Your task to perform on an android device: turn off location Image 0: 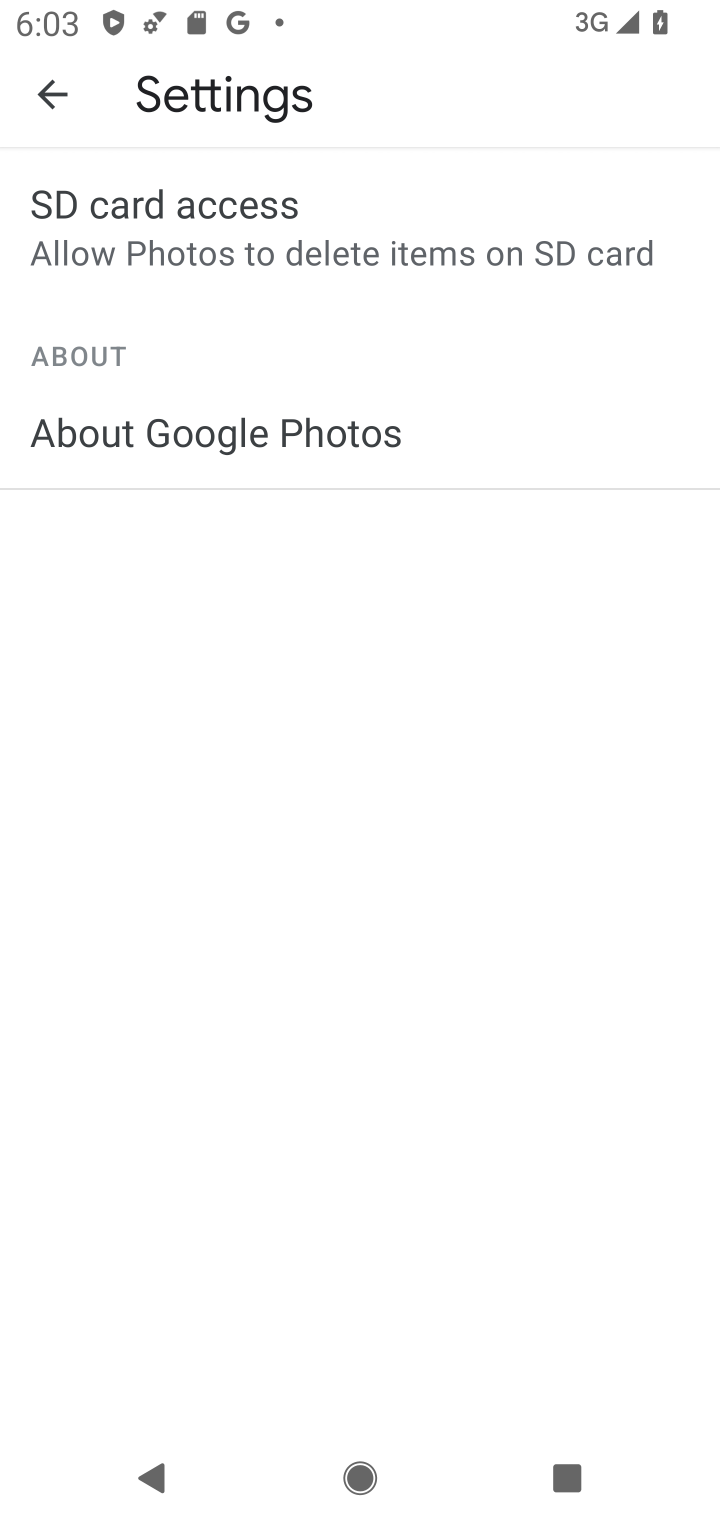
Step 0: press home button
Your task to perform on an android device: turn off location Image 1: 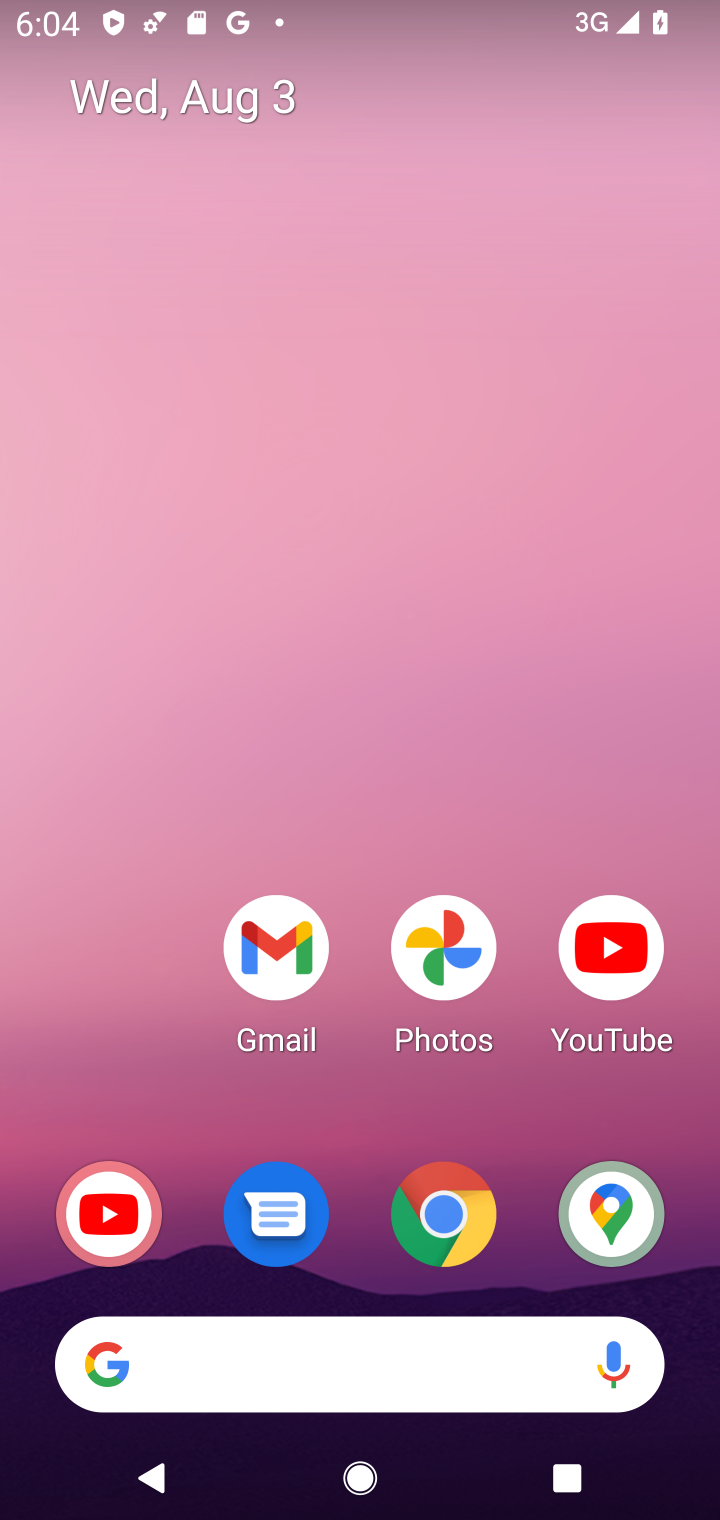
Step 1: drag from (333, 1103) to (496, 51)
Your task to perform on an android device: turn off location Image 2: 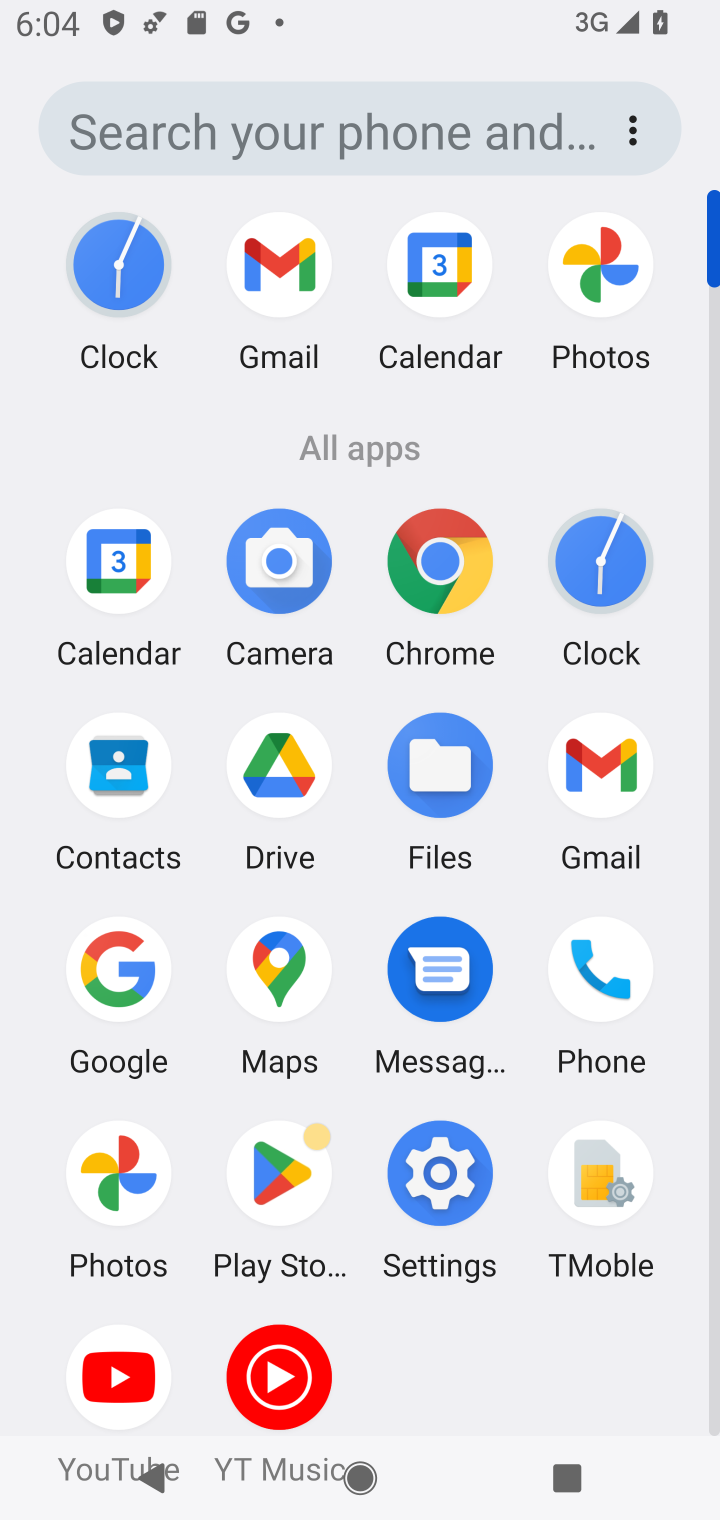
Step 2: click (428, 1151)
Your task to perform on an android device: turn off location Image 3: 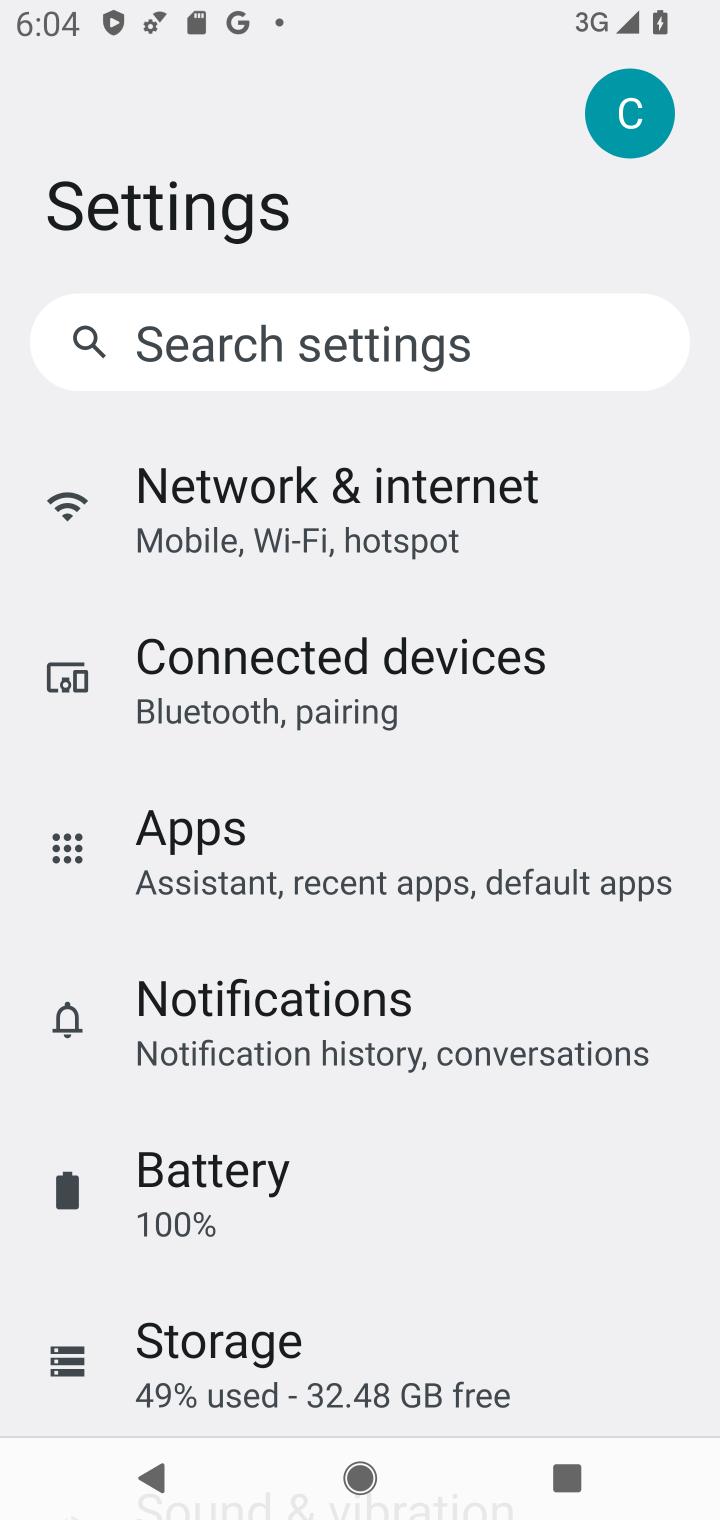
Step 3: drag from (356, 1337) to (199, 308)
Your task to perform on an android device: turn off location Image 4: 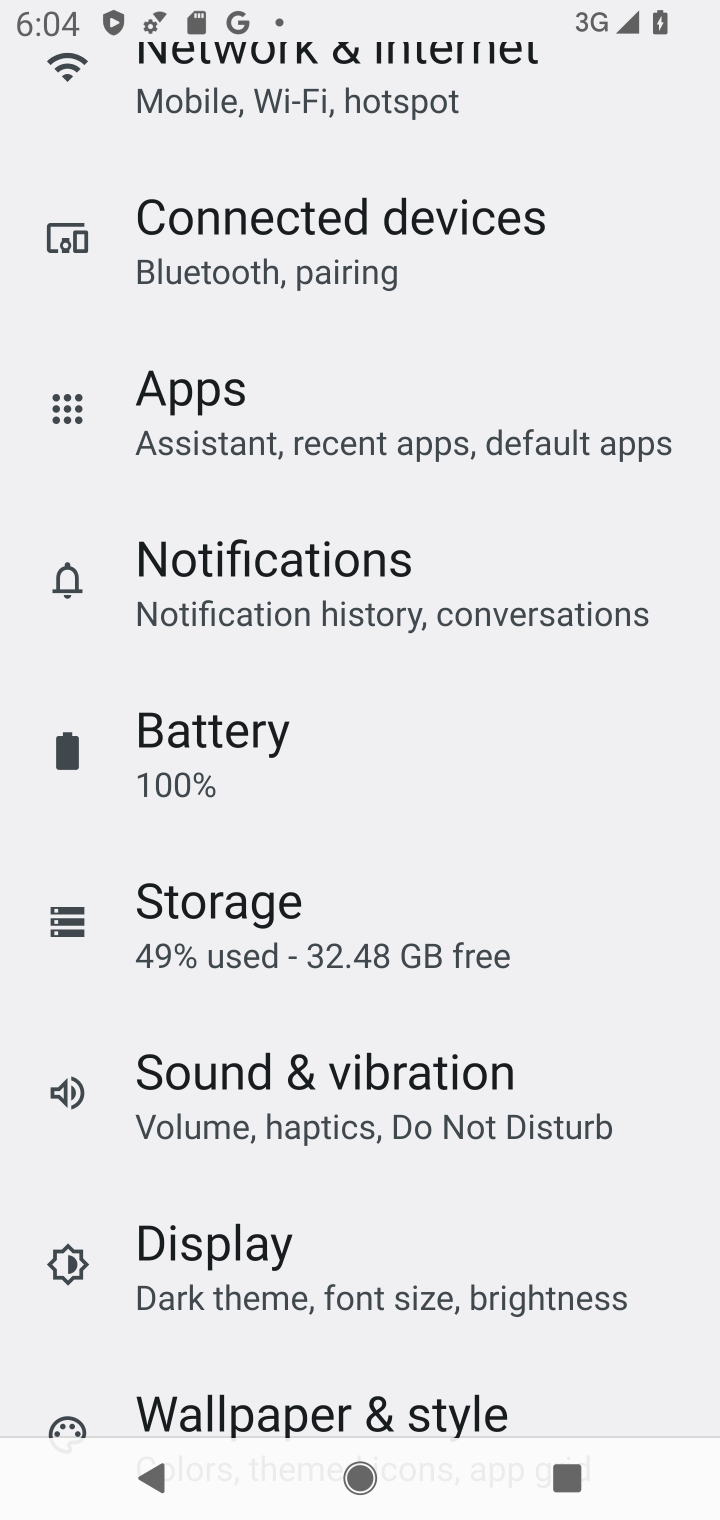
Step 4: drag from (336, 1171) to (224, 254)
Your task to perform on an android device: turn off location Image 5: 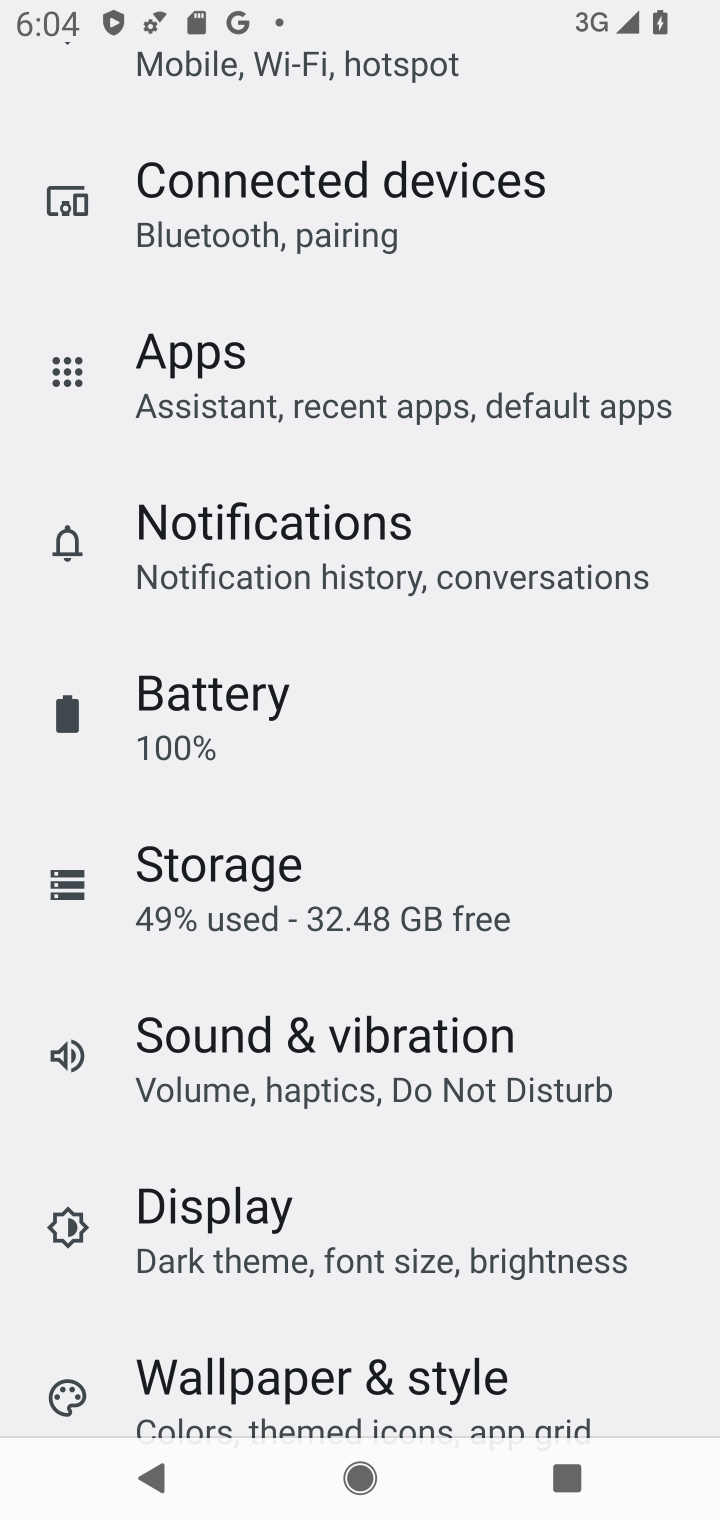
Step 5: drag from (318, 1051) to (135, 8)
Your task to perform on an android device: turn off location Image 6: 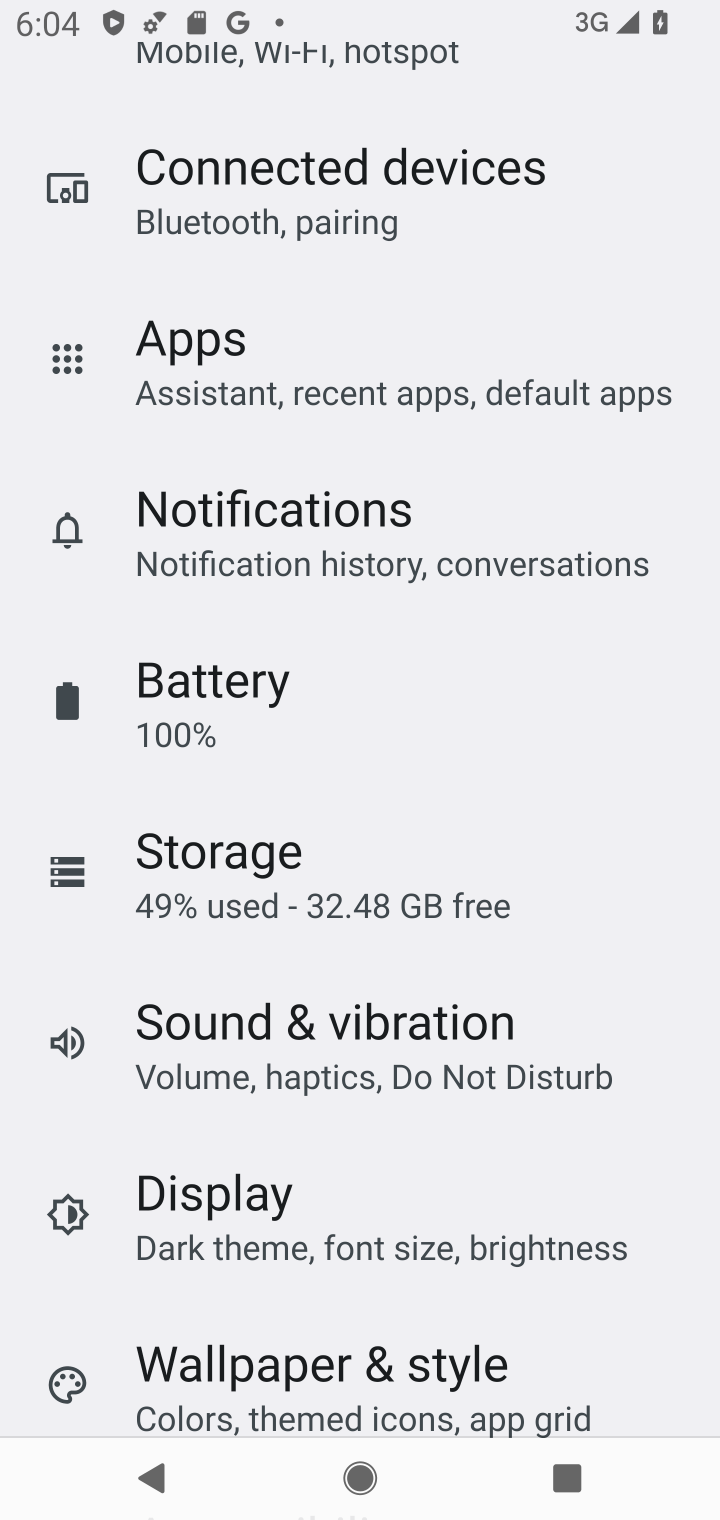
Step 6: drag from (140, 855) to (30, 60)
Your task to perform on an android device: turn off location Image 7: 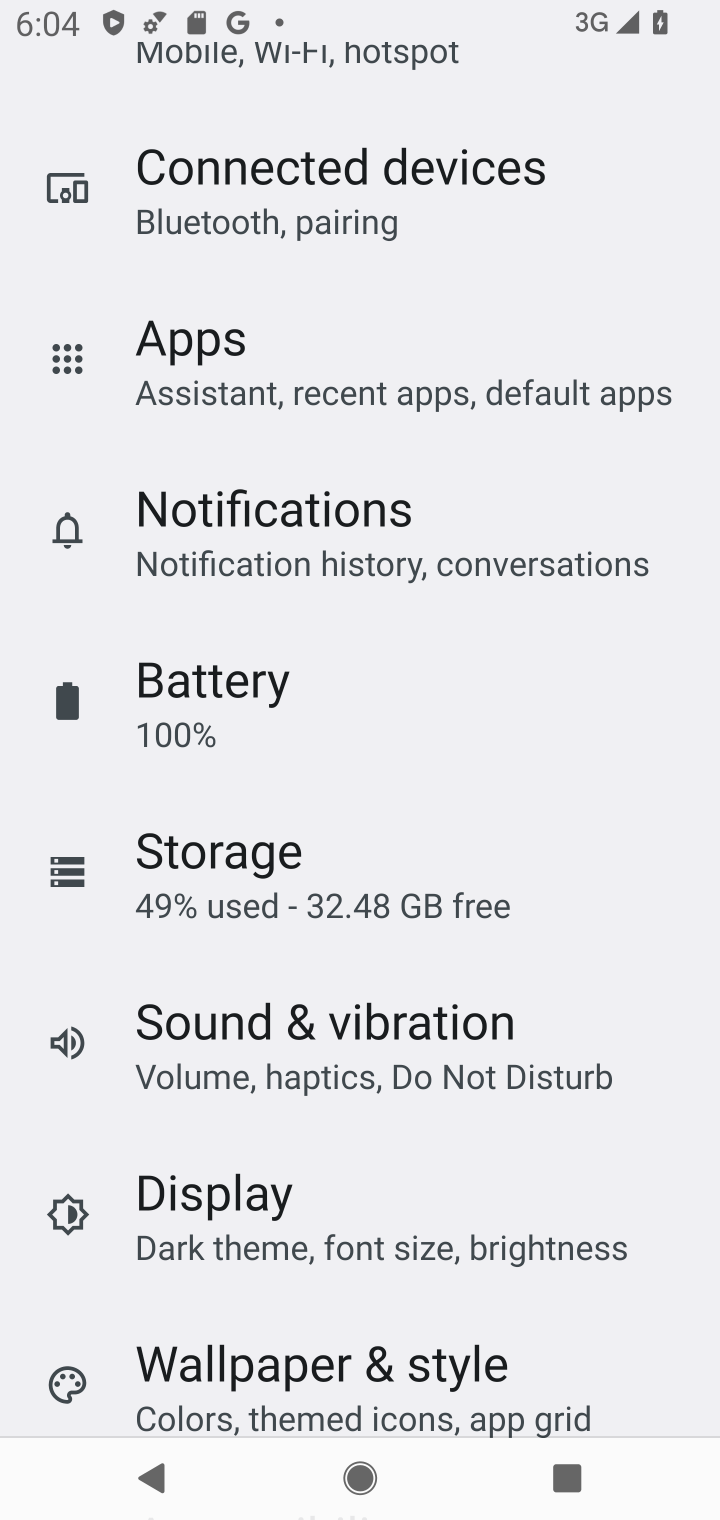
Step 7: drag from (411, 1238) to (354, 341)
Your task to perform on an android device: turn off location Image 8: 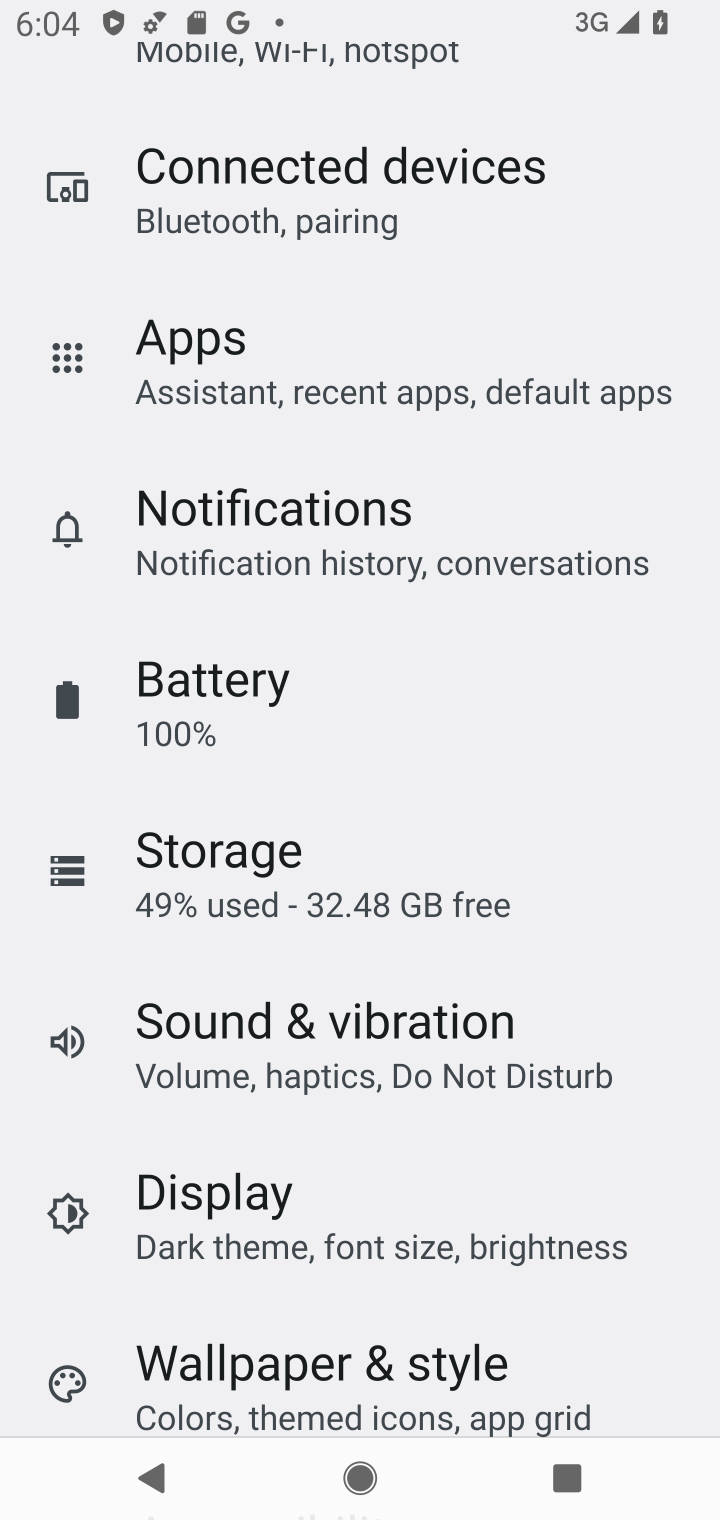
Step 8: drag from (199, 1197) to (102, 553)
Your task to perform on an android device: turn off location Image 9: 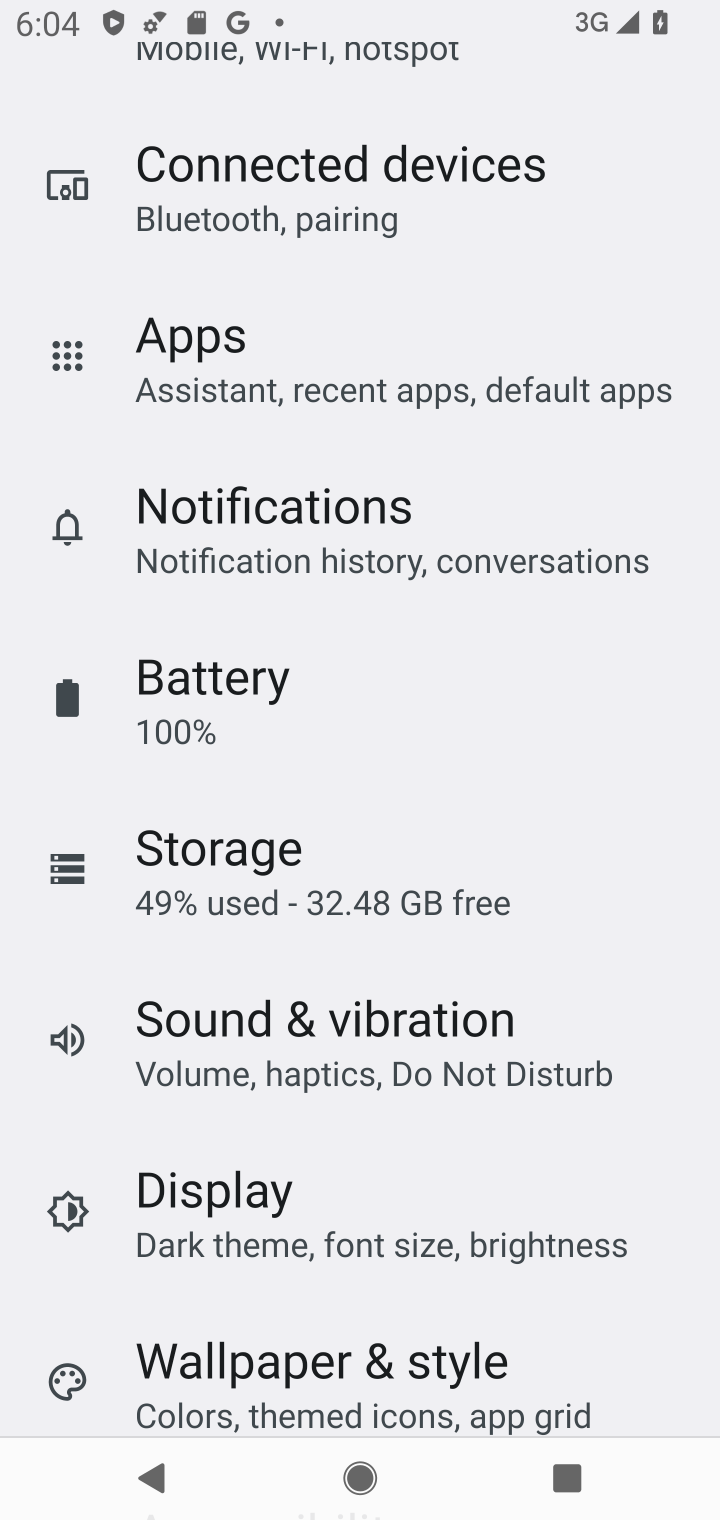
Step 9: drag from (354, 1339) to (302, 118)
Your task to perform on an android device: turn off location Image 10: 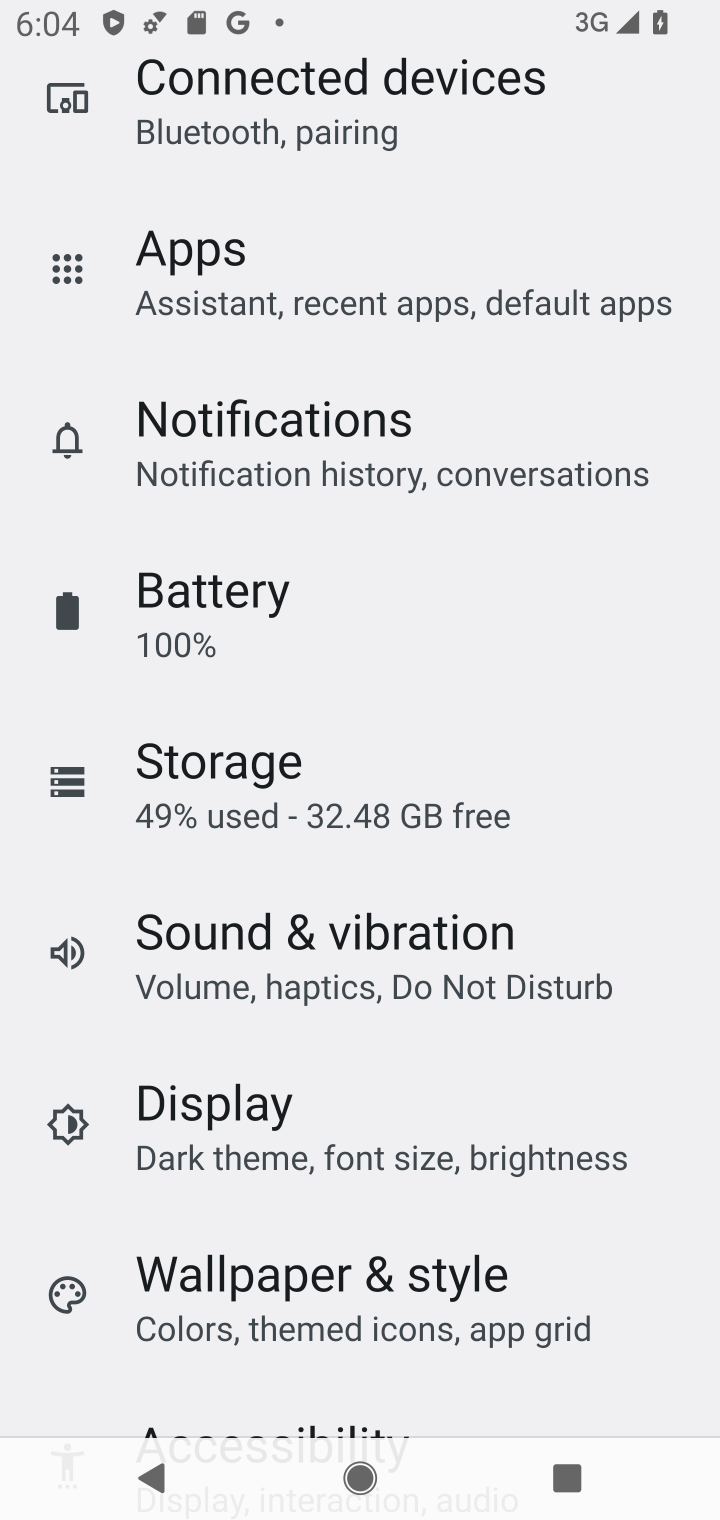
Step 10: drag from (271, 1154) to (182, 130)
Your task to perform on an android device: turn off location Image 11: 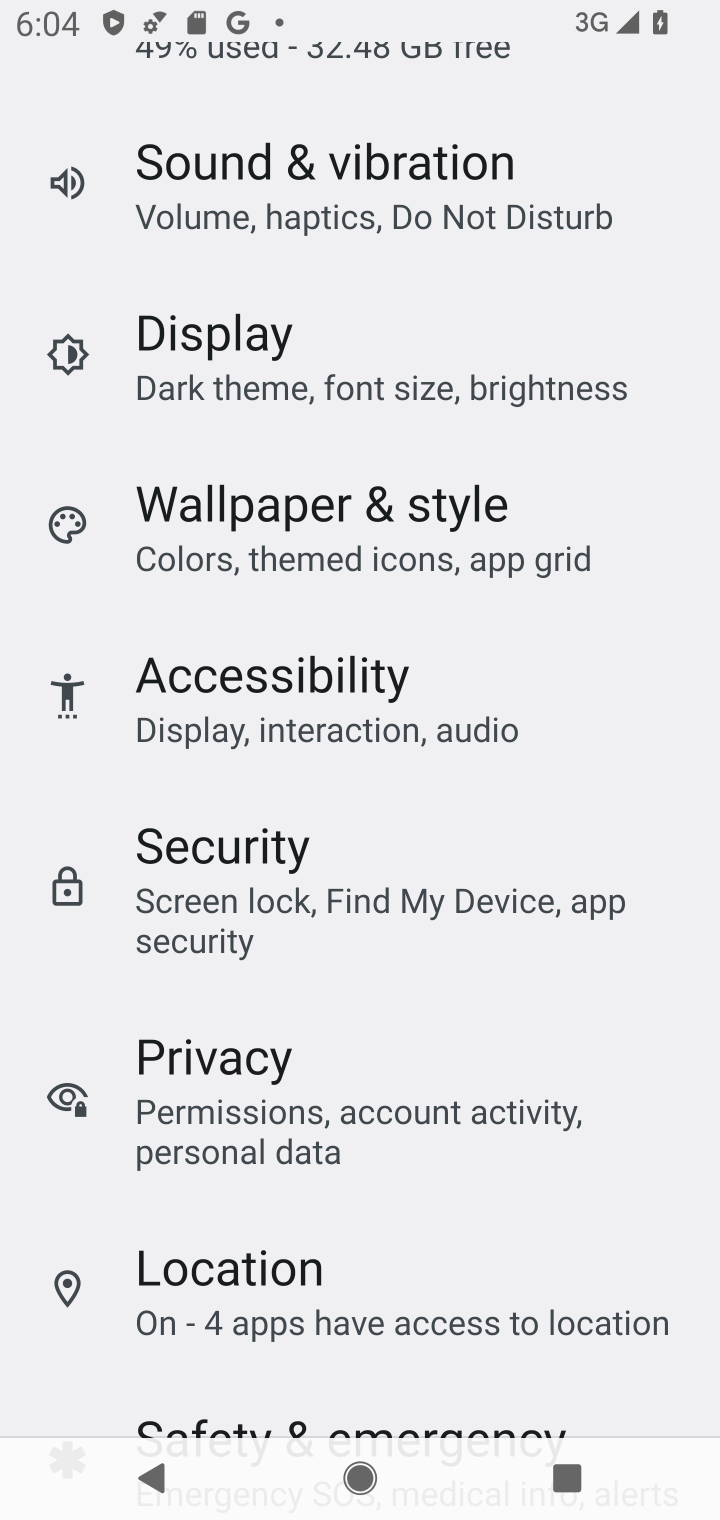
Step 11: click (218, 1272)
Your task to perform on an android device: turn off location Image 12: 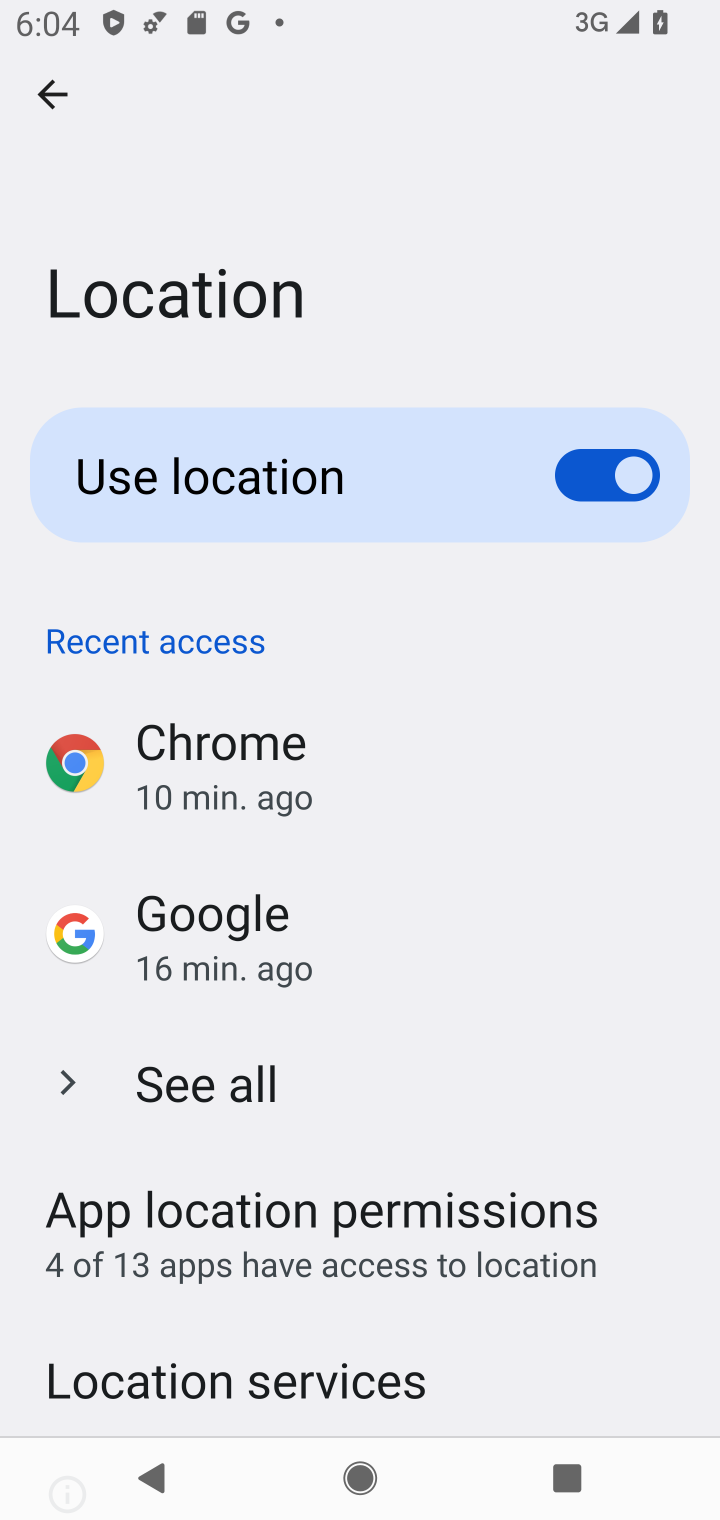
Step 12: click (629, 436)
Your task to perform on an android device: turn off location Image 13: 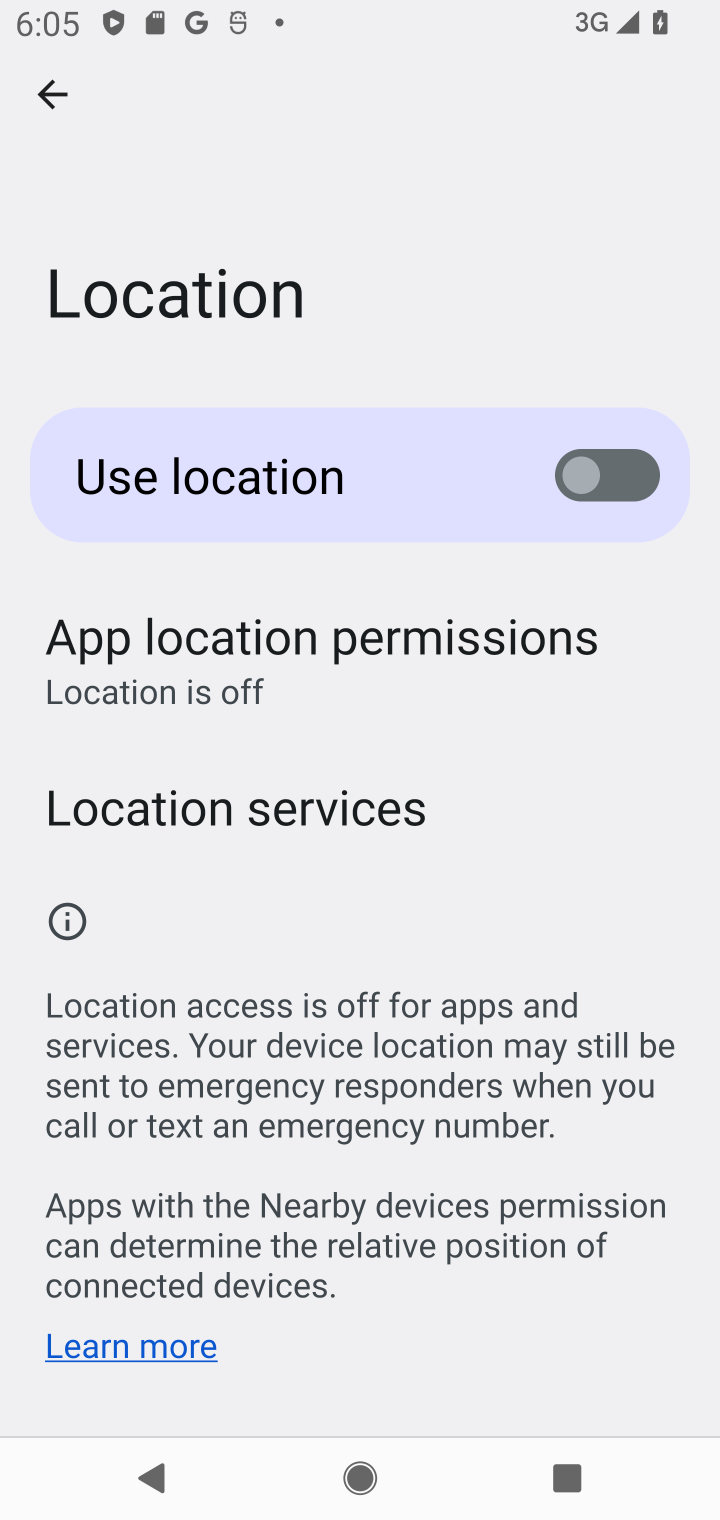
Step 13: task complete